Your task to perform on an android device: open app "Google Play services" Image 0: 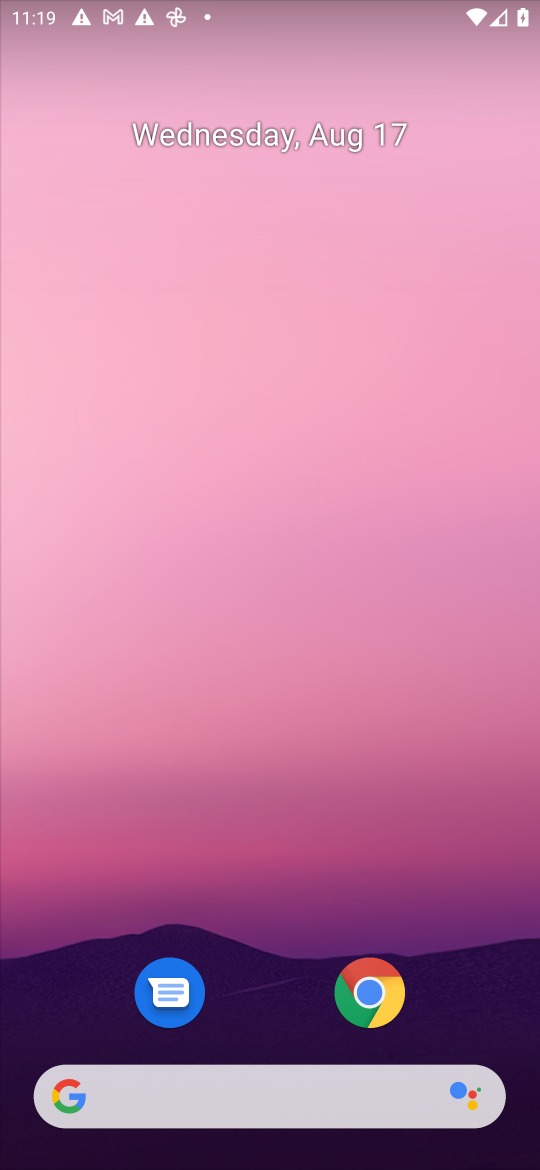
Step 0: drag from (479, 965) to (324, 40)
Your task to perform on an android device: open app "Google Play services" Image 1: 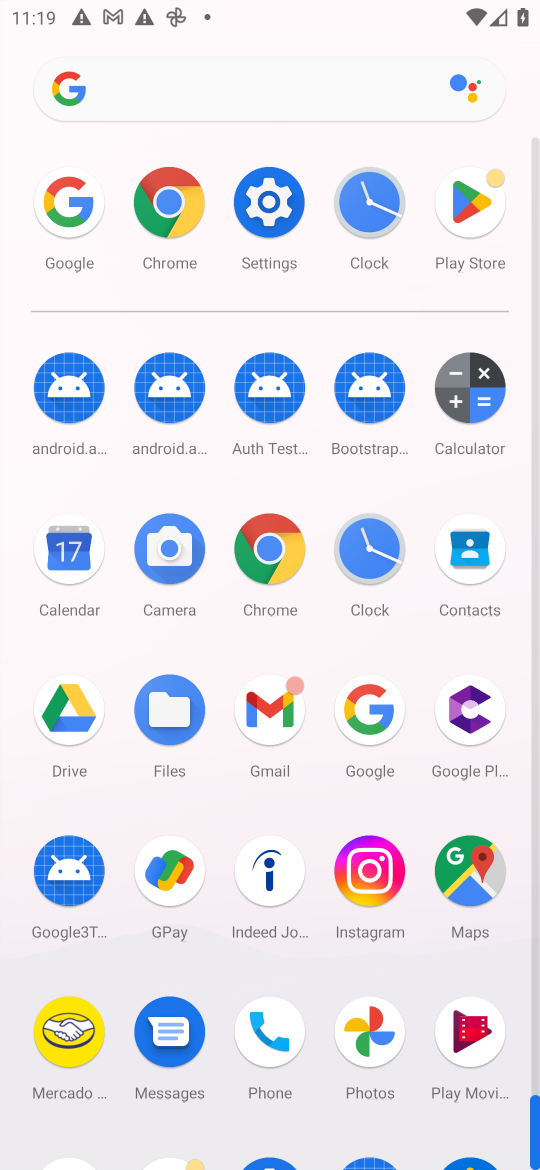
Step 1: click (491, 190)
Your task to perform on an android device: open app "Google Play services" Image 2: 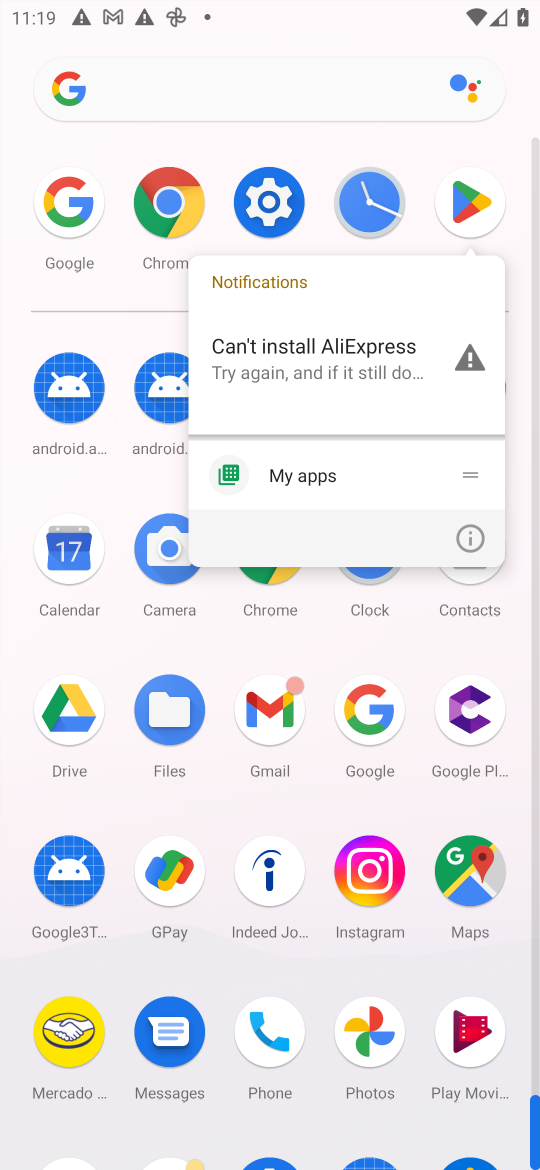
Step 2: click (473, 196)
Your task to perform on an android device: open app "Google Play services" Image 3: 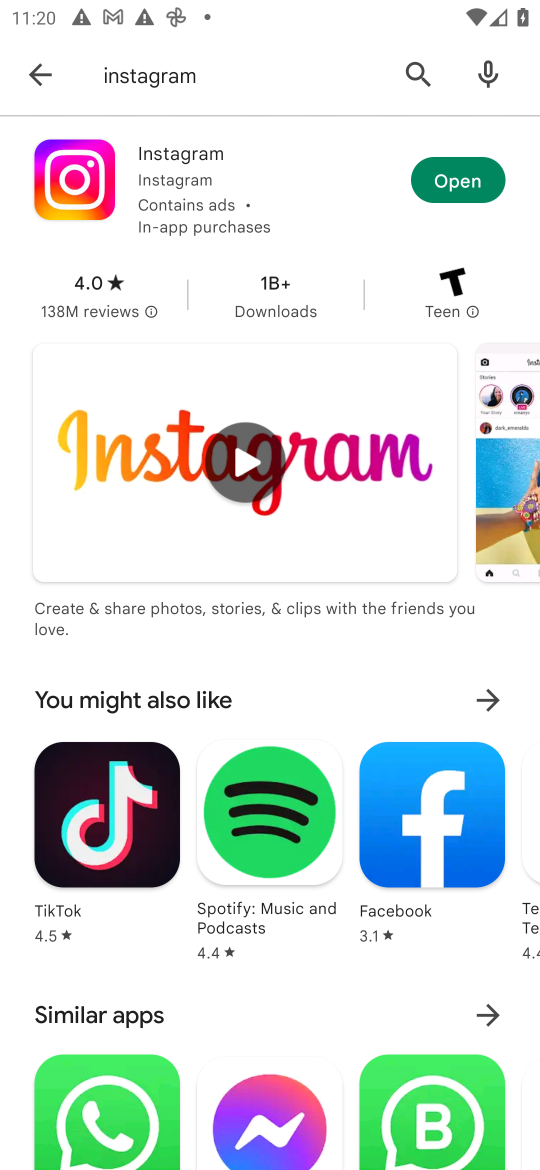
Step 3: press back button
Your task to perform on an android device: open app "Google Play services" Image 4: 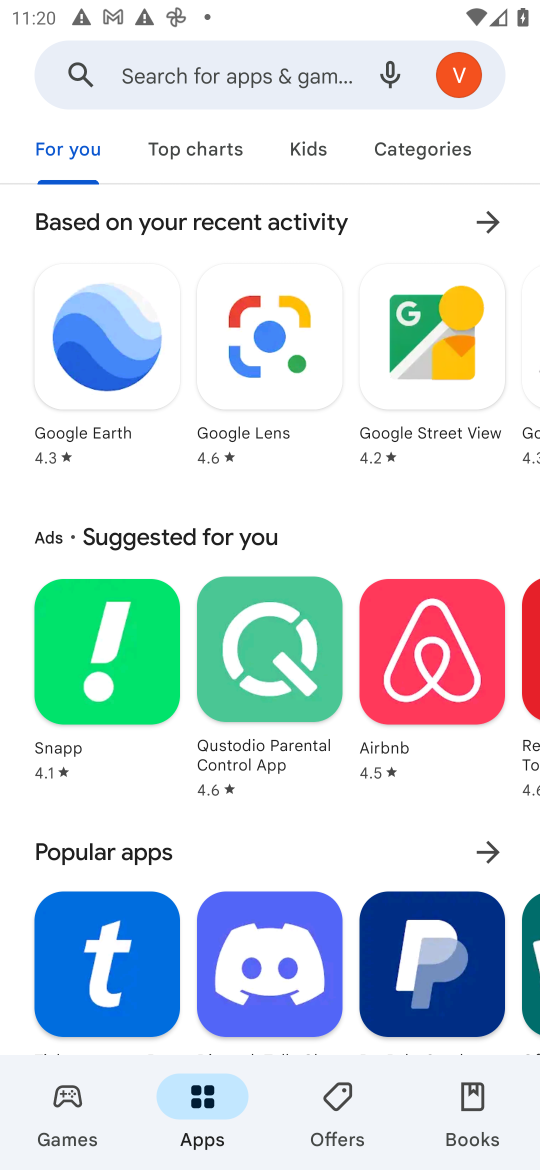
Step 4: click (222, 79)
Your task to perform on an android device: open app "Google Play services" Image 5: 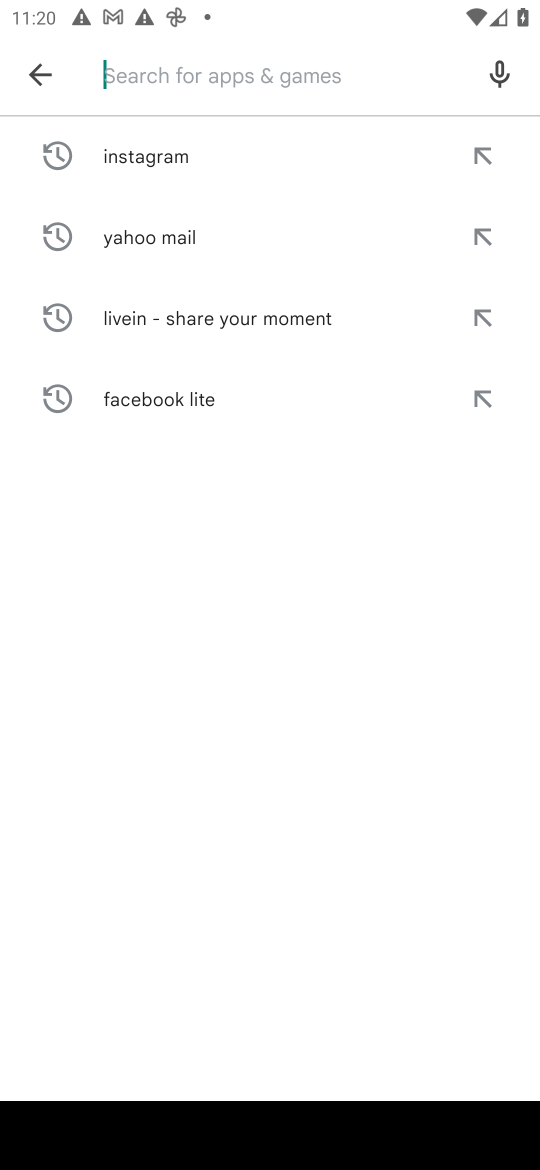
Step 5: type "Google Play services"
Your task to perform on an android device: open app "Google Play services" Image 6: 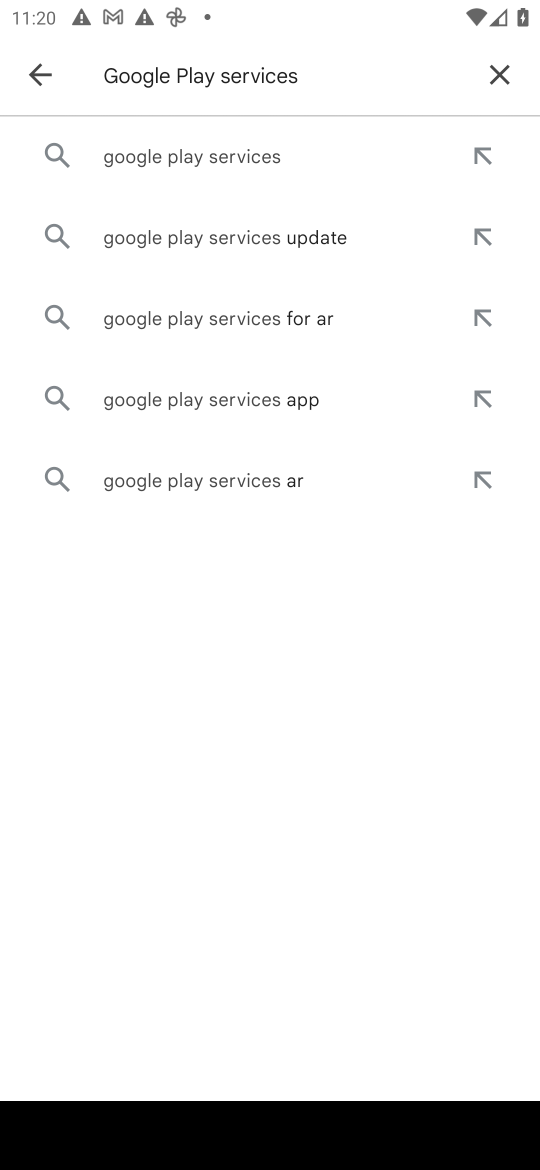
Step 6: click (213, 161)
Your task to perform on an android device: open app "Google Play services" Image 7: 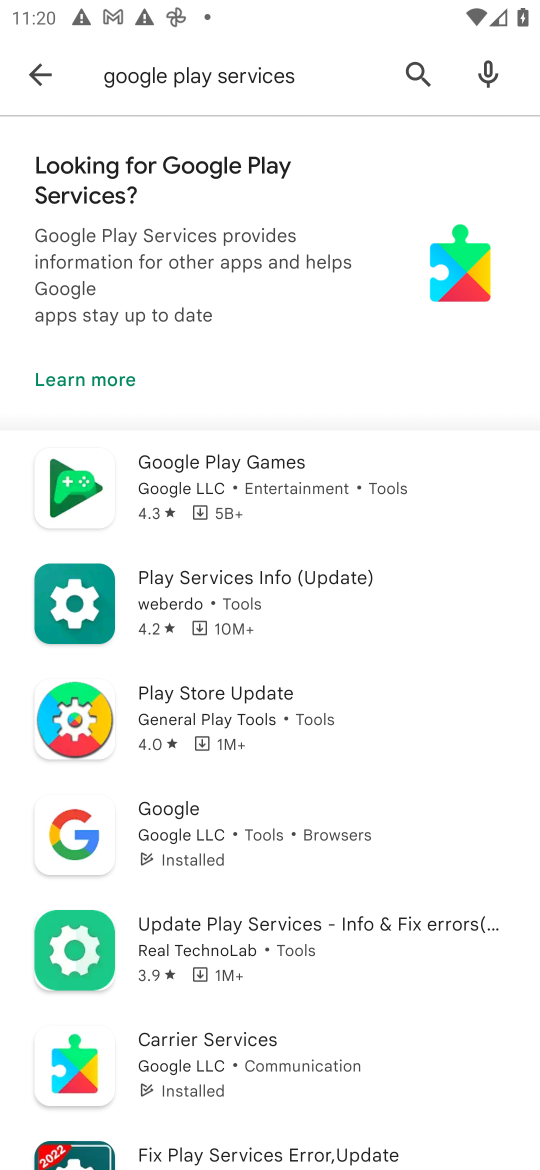
Step 7: task complete